Your task to perform on an android device: check out phone information Image 0: 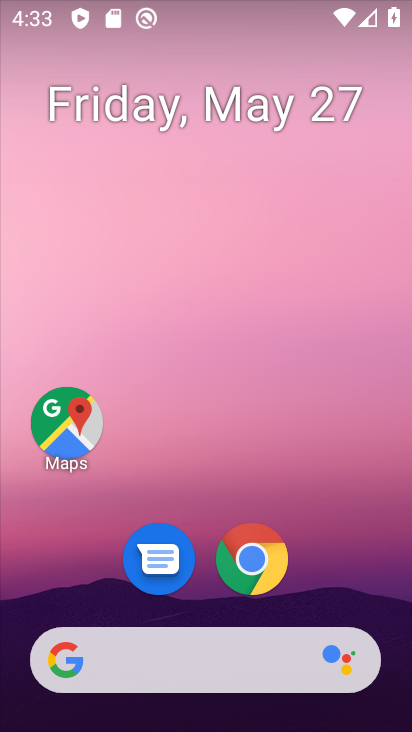
Step 0: drag from (207, 516) to (188, 94)
Your task to perform on an android device: check out phone information Image 1: 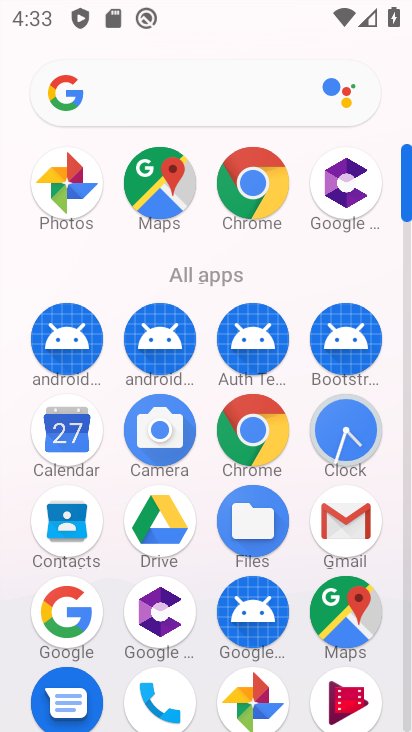
Step 1: drag from (288, 410) to (249, 105)
Your task to perform on an android device: check out phone information Image 2: 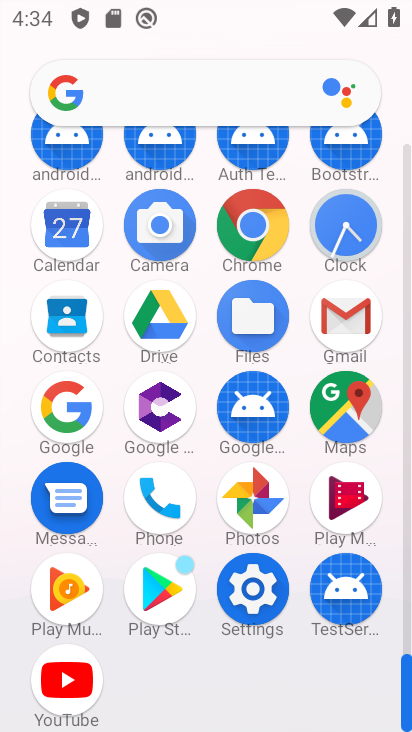
Step 2: click (148, 515)
Your task to perform on an android device: check out phone information Image 3: 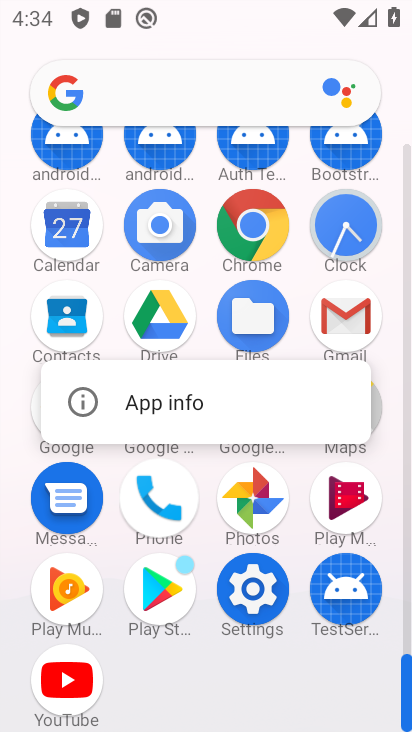
Step 3: click (207, 414)
Your task to perform on an android device: check out phone information Image 4: 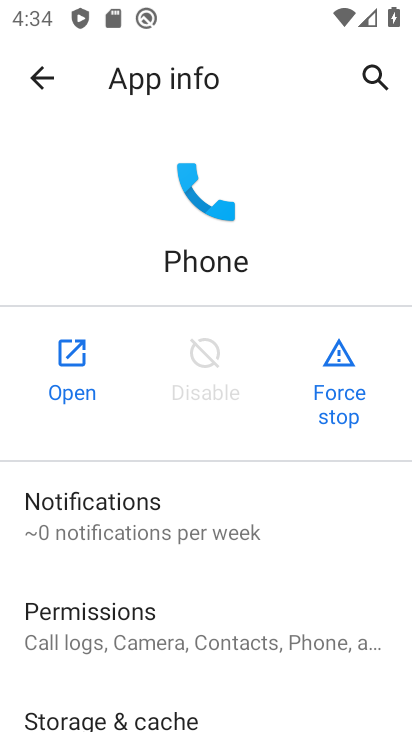
Step 4: task complete